Your task to perform on an android device: Open calendar and show me the first week of next month Image 0: 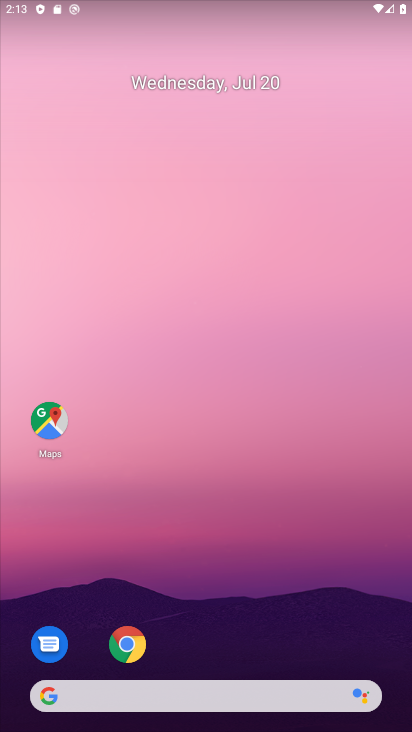
Step 0: drag from (290, 650) to (209, 24)
Your task to perform on an android device: Open calendar and show me the first week of next month Image 1: 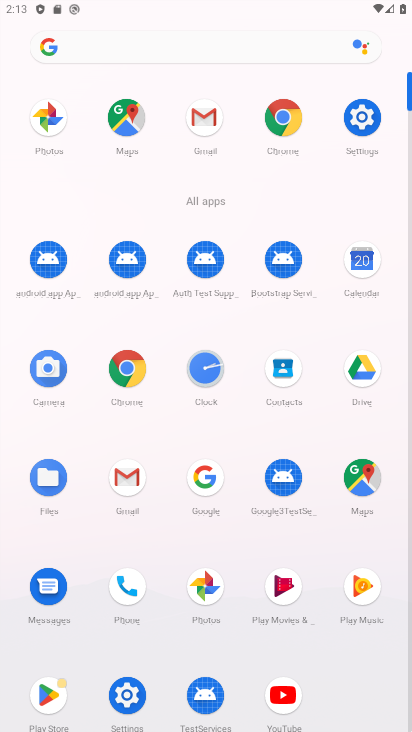
Step 1: click (367, 253)
Your task to perform on an android device: Open calendar and show me the first week of next month Image 2: 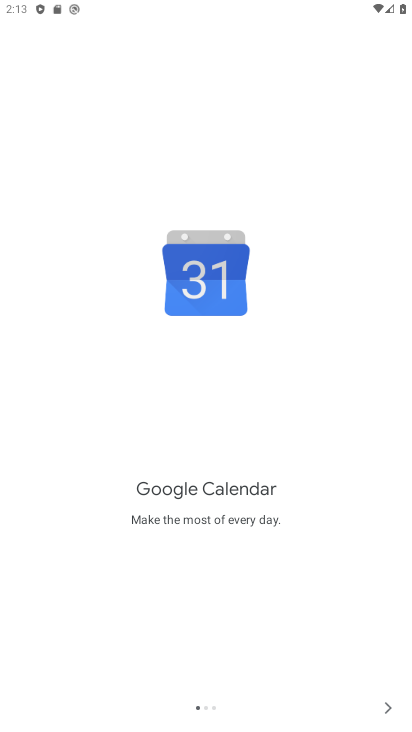
Step 2: click (383, 706)
Your task to perform on an android device: Open calendar and show me the first week of next month Image 3: 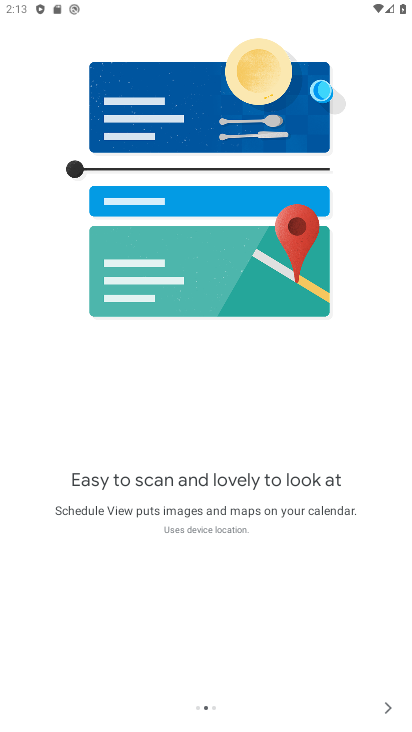
Step 3: click (383, 706)
Your task to perform on an android device: Open calendar and show me the first week of next month Image 4: 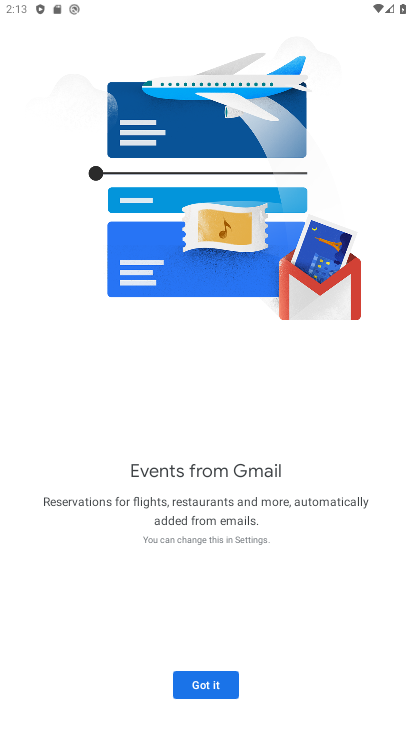
Step 4: click (220, 690)
Your task to perform on an android device: Open calendar and show me the first week of next month Image 5: 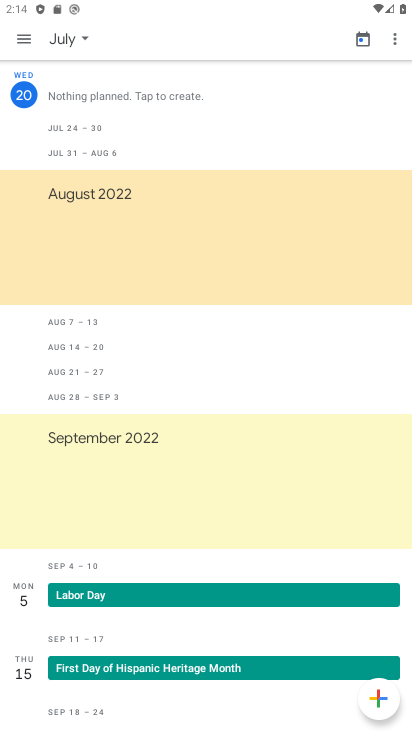
Step 5: click (77, 40)
Your task to perform on an android device: Open calendar and show me the first week of next month Image 6: 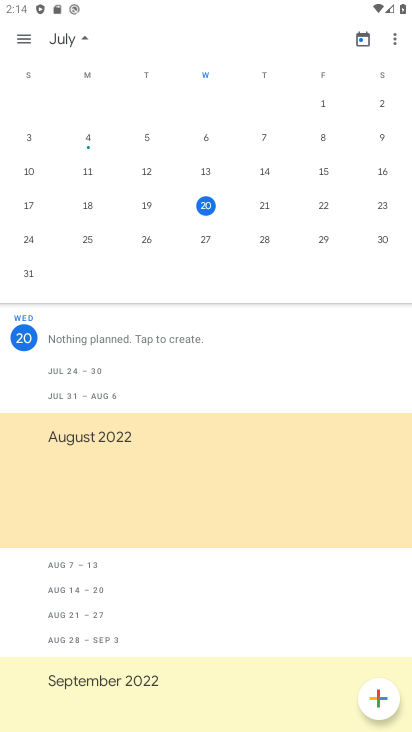
Step 6: task complete